Your task to perform on an android device: turn smart compose on in the gmail app Image 0: 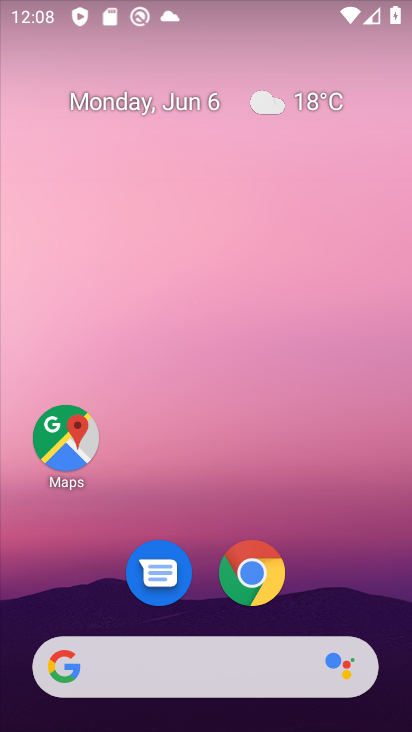
Step 0: drag from (92, 623) to (224, 166)
Your task to perform on an android device: turn smart compose on in the gmail app Image 1: 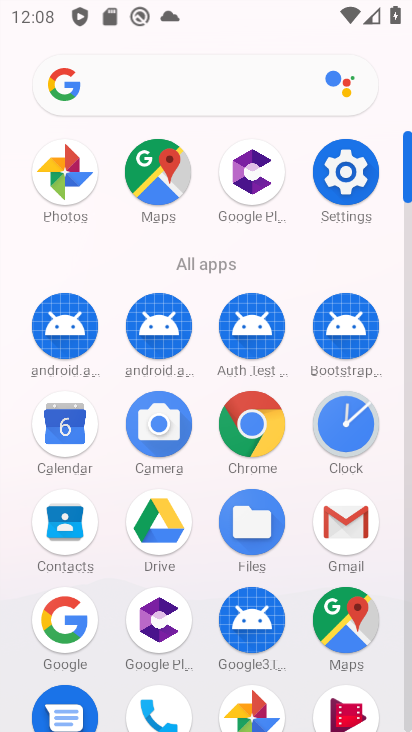
Step 1: click (363, 522)
Your task to perform on an android device: turn smart compose on in the gmail app Image 2: 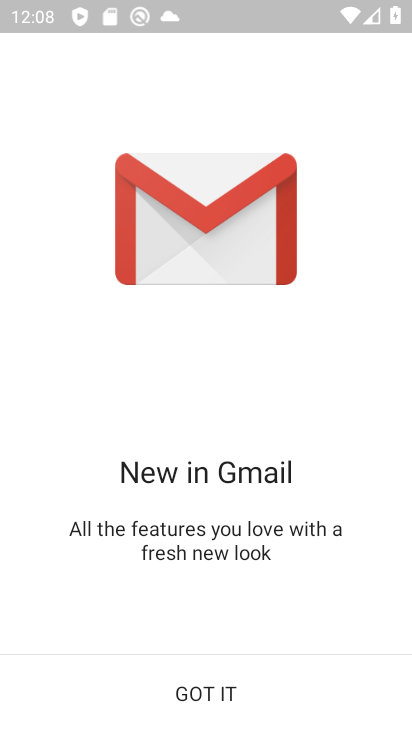
Step 2: click (223, 688)
Your task to perform on an android device: turn smart compose on in the gmail app Image 3: 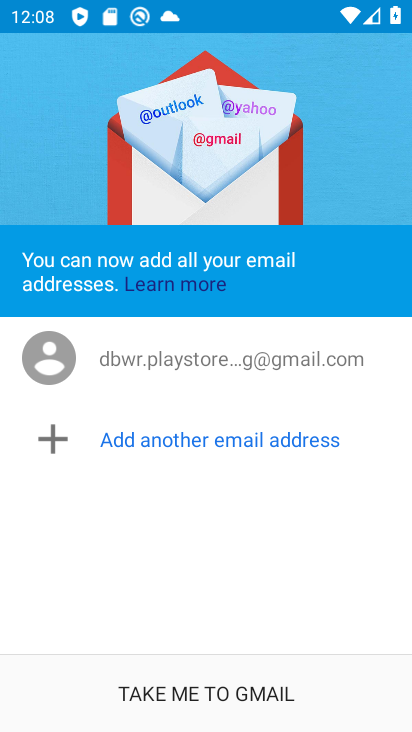
Step 3: click (245, 676)
Your task to perform on an android device: turn smart compose on in the gmail app Image 4: 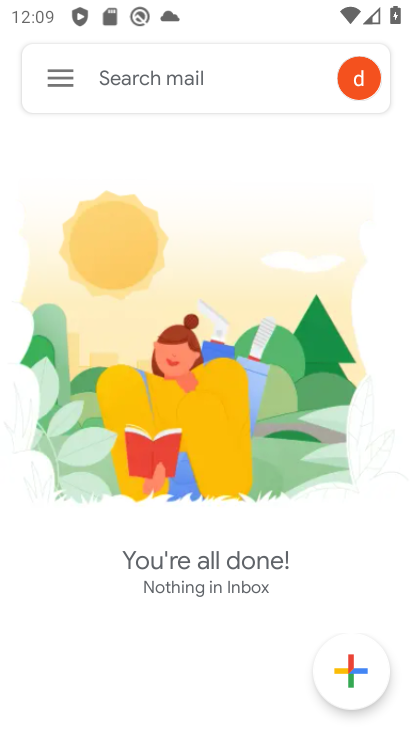
Step 4: click (52, 89)
Your task to perform on an android device: turn smart compose on in the gmail app Image 5: 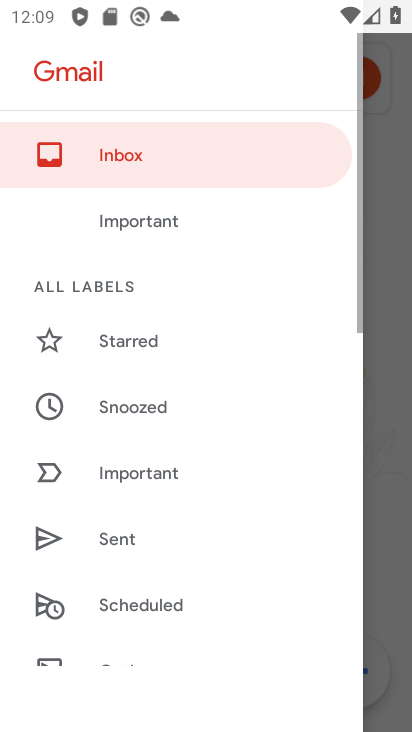
Step 5: drag from (137, 552) to (252, 130)
Your task to perform on an android device: turn smart compose on in the gmail app Image 6: 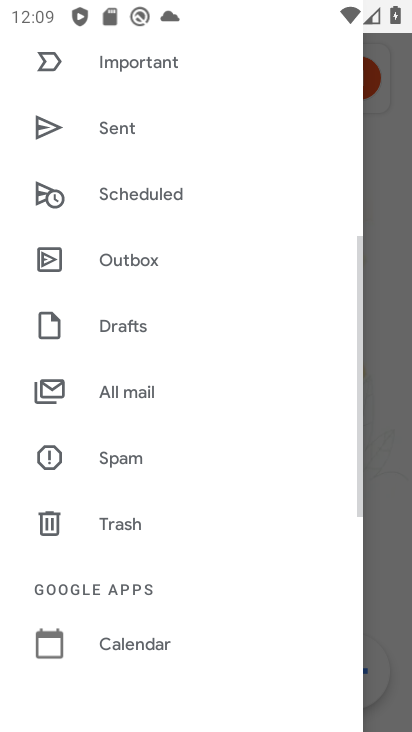
Step 6: drag from (217, 554) to (338, 101)
Your task to perform on an android device: turn smart compose on in the gmail app Image 7: 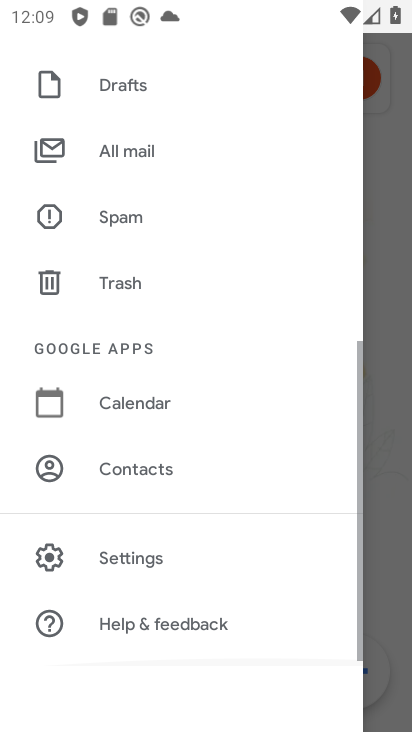
Step 7: click (177, 566)
Your task to perform on an android device: turn smart compose on in the gmail app Image 8: 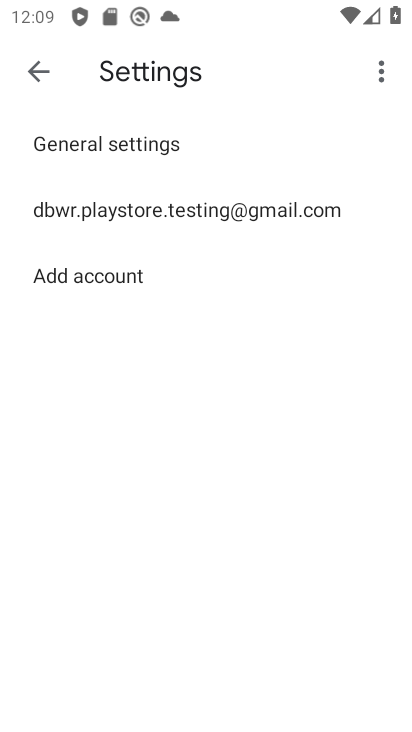
Step 8: click (249, 231)
Your task to perform on an android device: turn smart compose on in the gmail app Image 9: 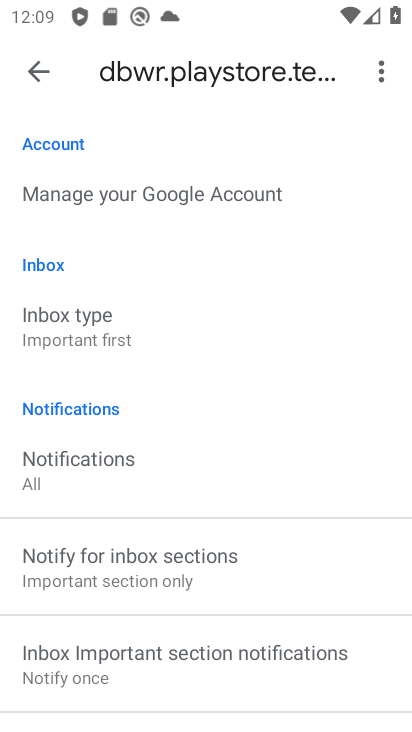
Step 9: task complete